Your task to perform on an android device: toggle translation in the chrome app Image 0: 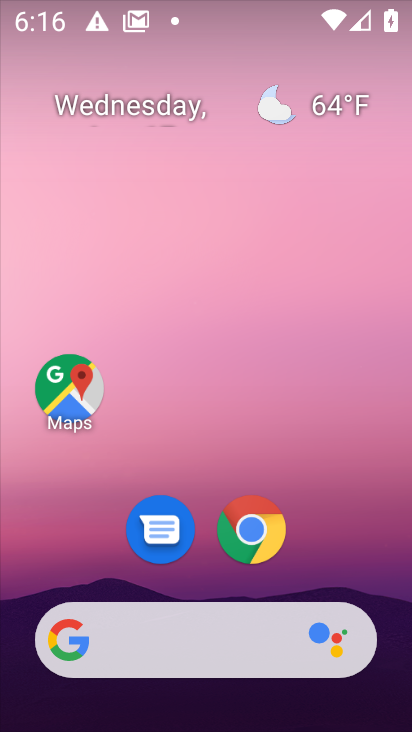
Step 0: click (255, 528)
Your task to perform on an android device: toggle translation in the chrome app Image 1: 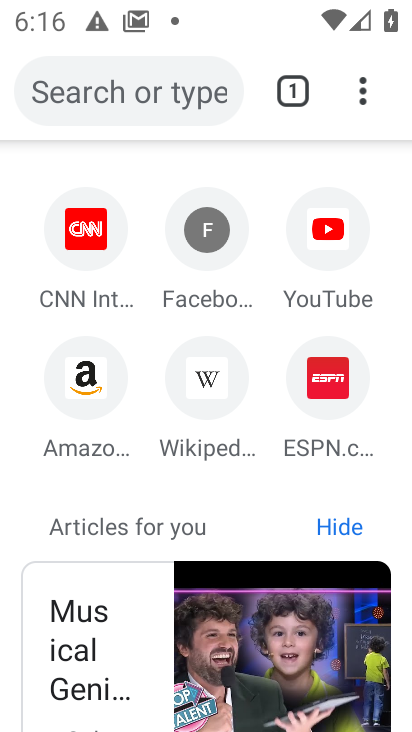
Step 1: click (333, 489)
Your task to perform on an android device: toggle translation in the chrome app Image 2: 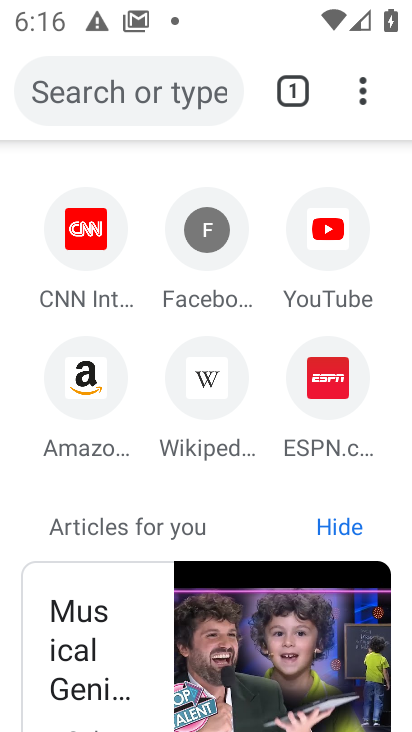
Step 2: click (368, 96)
Your task to perform on an android device: toggle translation in the chrome app Image 3: 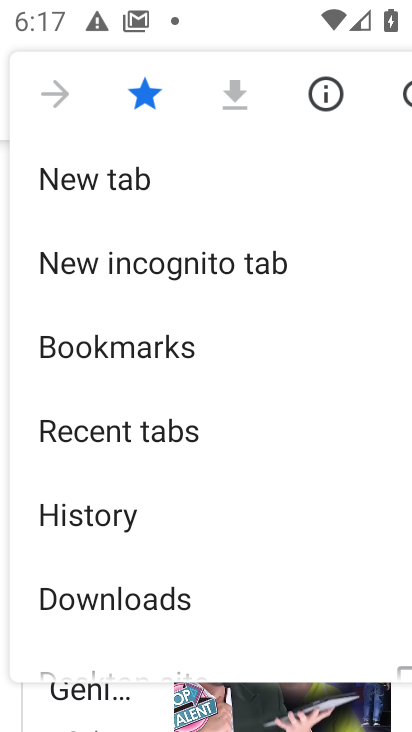
Step 3: drag from (240, 510) to (205, 184)
Your task to perform on an android device: toggle translation in the chrome app Image 4: 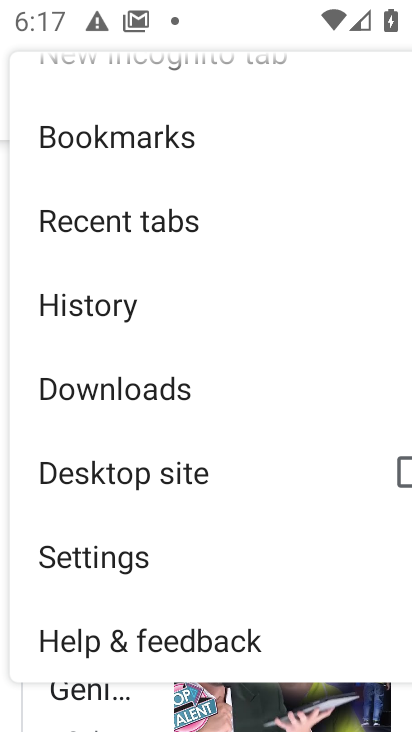
Step 4: click (116, 559)
Your task to perform on an android device: toggle translation in the chrome app Image 5: 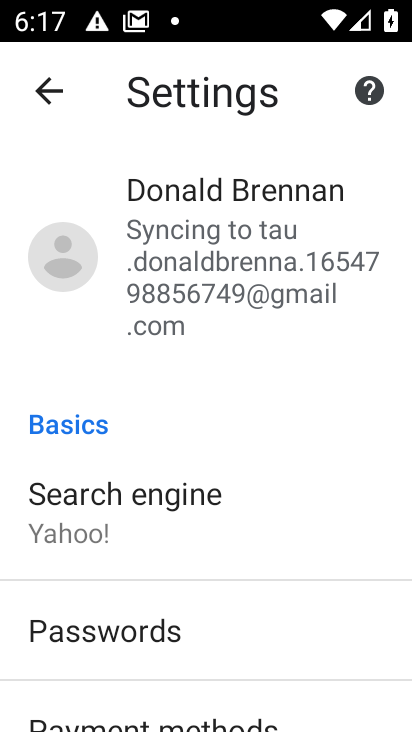
Step 5: drag from (219, 648) to (208, 319)
Your task to perform on an android device: toggle translation in the chrome app Image 6: 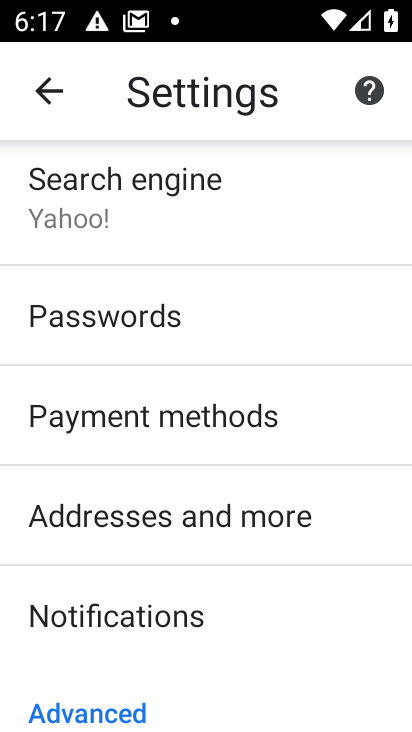
Step 6: drag from (222, 632) to (222, 75)
Your task to perform on an android device: toggle translation in the chrome app Image 7: 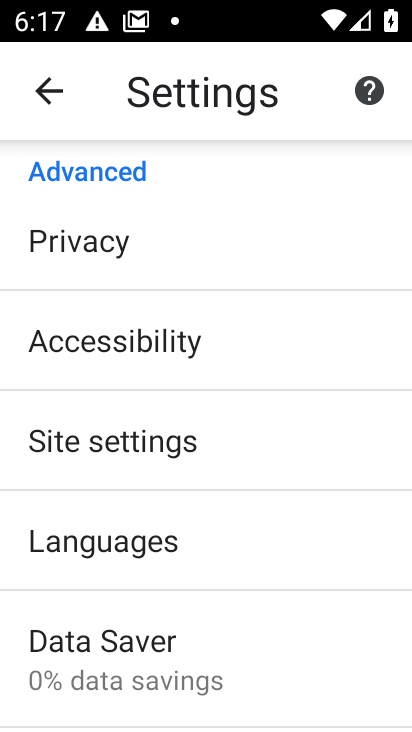
Step 7: click (74, 433)
Your task to perform on an android device: toggle translation in the chrome app Image 8: 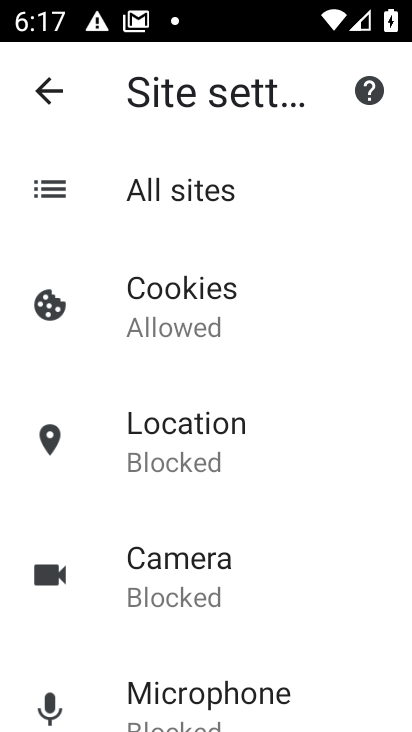
Step 8: press back button
Your task to perform on an android device: toggle translation in the chrome app Image 9: 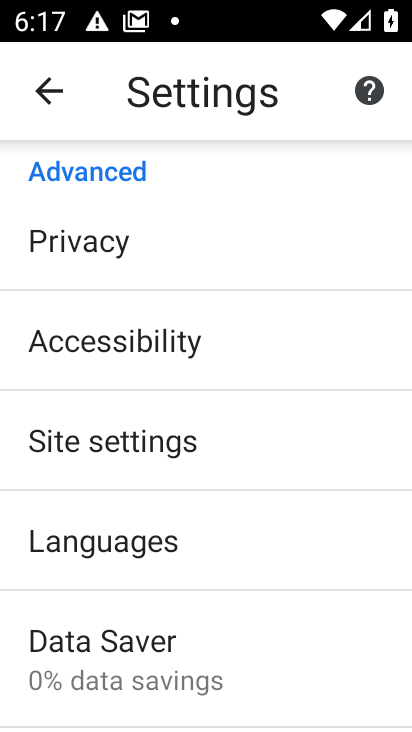
Step 9: click (129, 556)
Your task to perform on an android device: toggle translation in the chrome app Image 10: 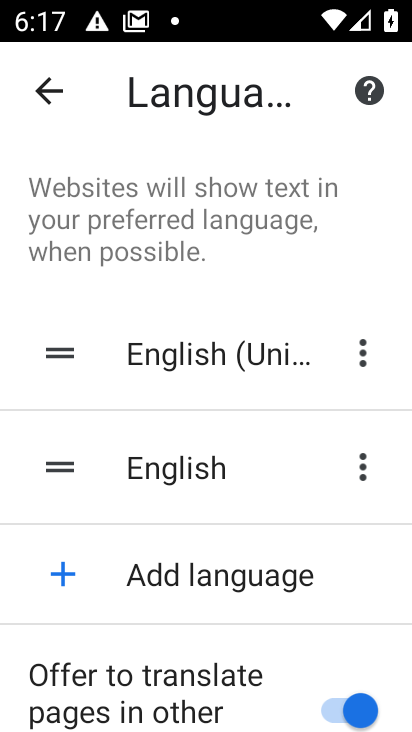
Step 10: click (328, 722)
Your task to perform on an android device: toggle translation in the chrome app Image 11: 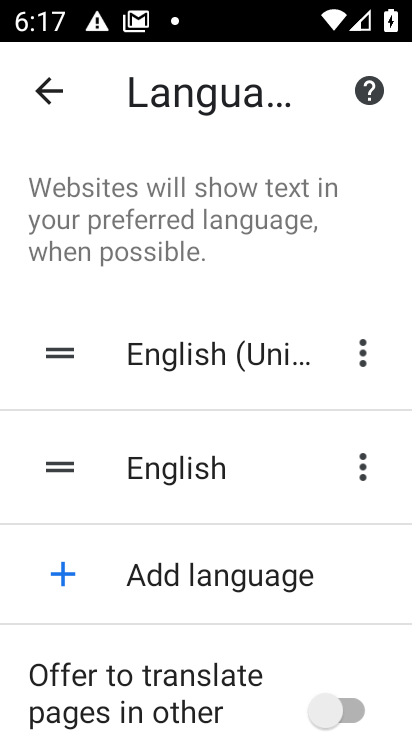
Step 11: task complete